Your task to perform on an android device: Show me recent news Image 0: 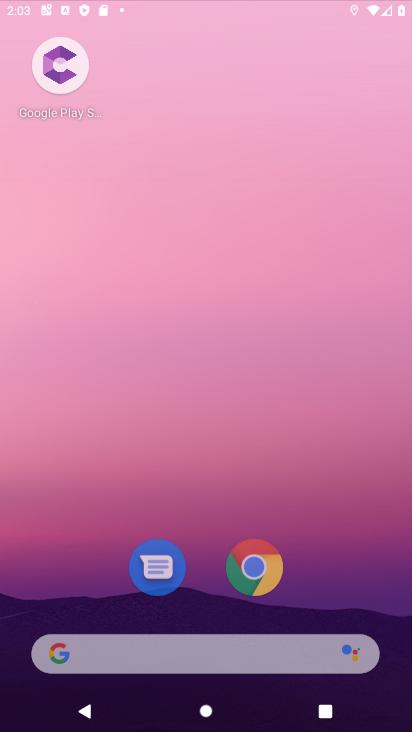
Step 0: press home button
Your task to perform on an android device: Show me recent news Image 1: 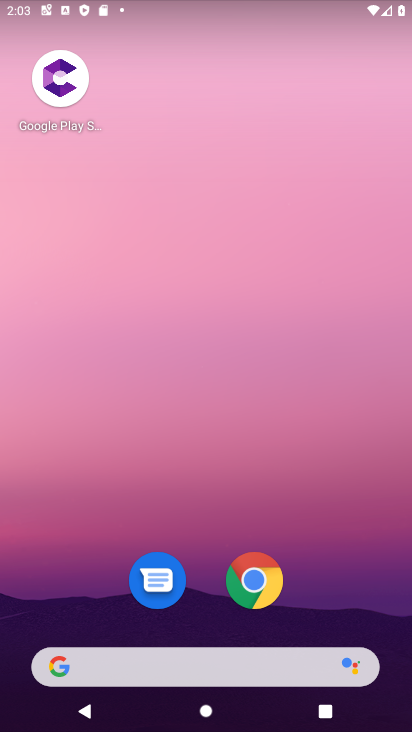
Step 1: drag from (197, 548) to (197, 168)
Your task to perform on an android device: Show me recent news Image 2: 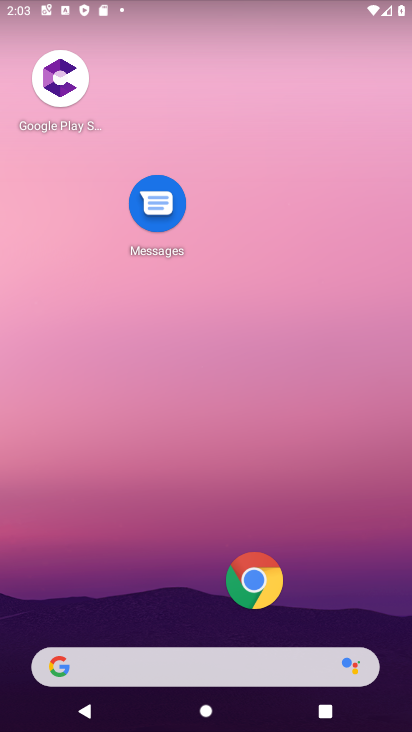
Step 2: drag from (178, 609) to (262, 157)
Your task to perform on an android device: Show me recent news Image 3: 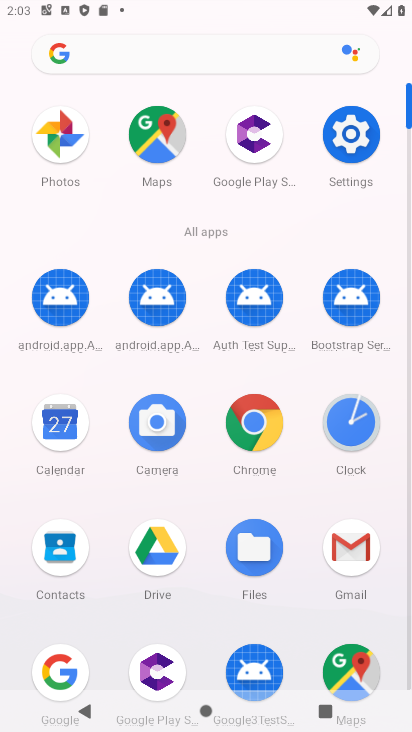
Step 3: click (51, 682)
Your task to perform on an android device: Show me recent news Image 4: 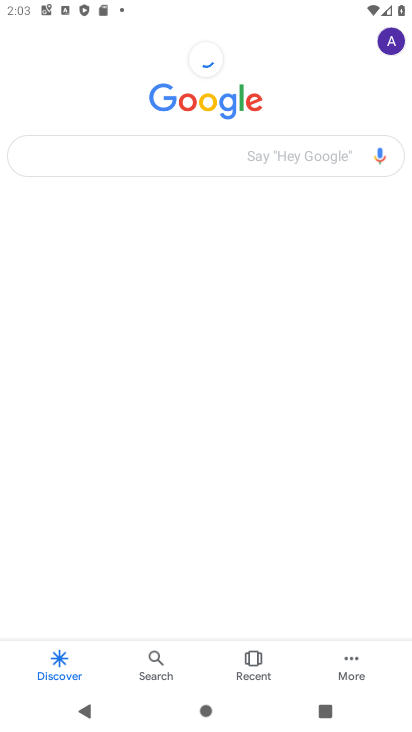
Step 4: click (117, 164)
Your task to perform on an android device: Show me recent news Image 5: 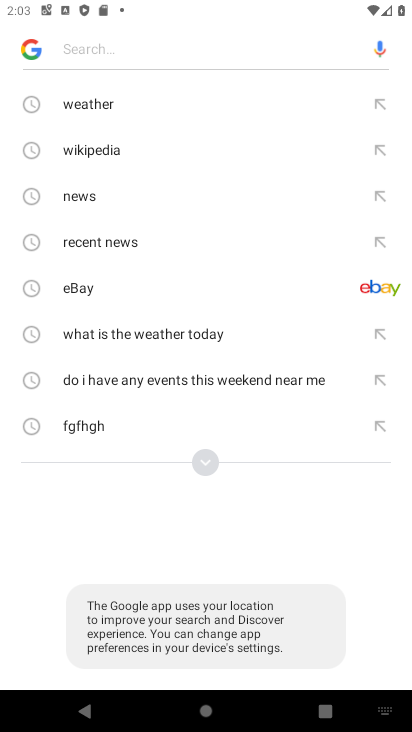
Step 5: click (105, 198)
Your task to perform on an android device: Show me recent news Image 6: 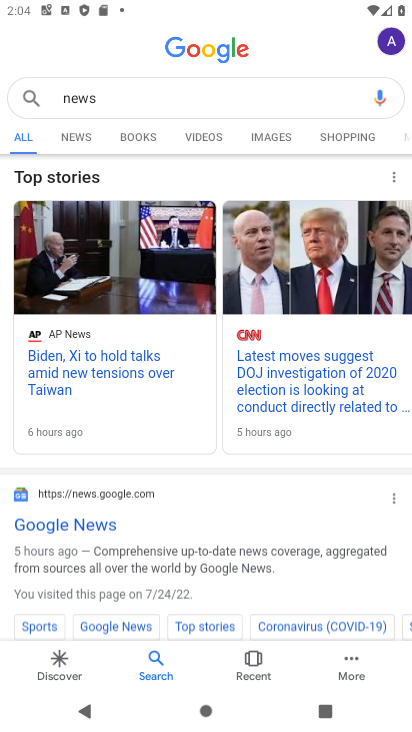
Step 6: click (67, 129)
Your task to perform on an android device: Show me recent news Image 7: 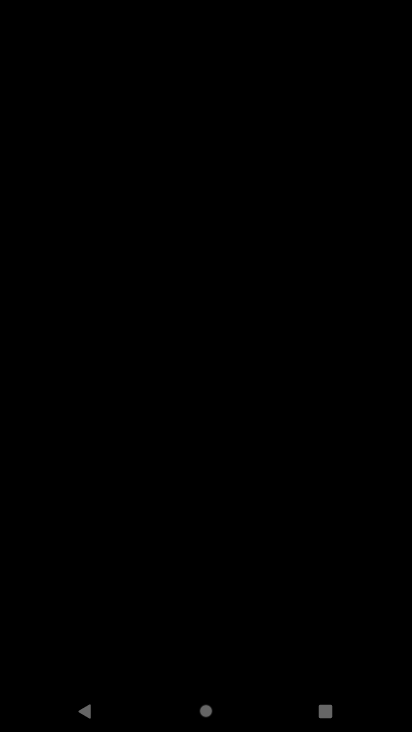
Step 7: task complete